Your task to perform on an android device: toggle pop-ups in chrome Image 0: 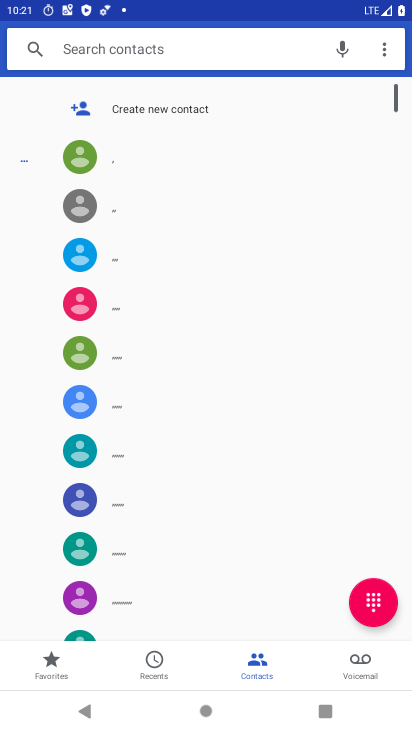
Step 0: press home button
Your task to perform on an android device: toggle pop-ups in chrome Image 1: 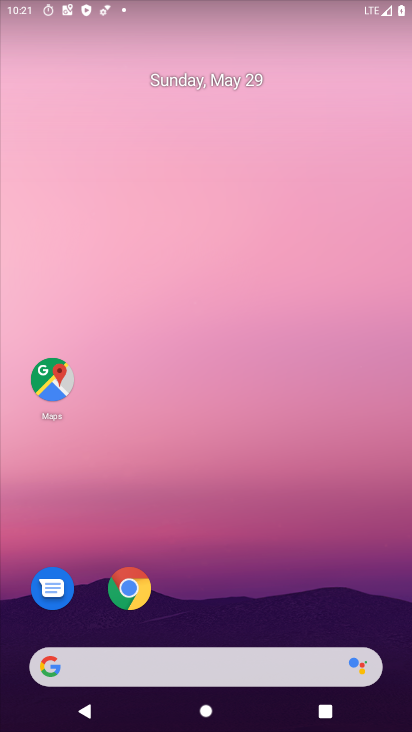
Step 1: drag from (185, 613) to (169, 285)
Your task to perform on an android device: toggle pop-ups in chrome Image 2: 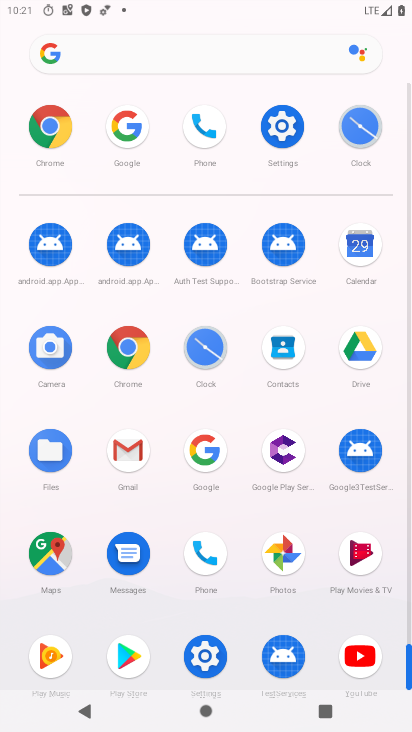
Step 2: click (134, 359)
Your task to perform on an android device: toggle pop-ups in chrome Image 3: 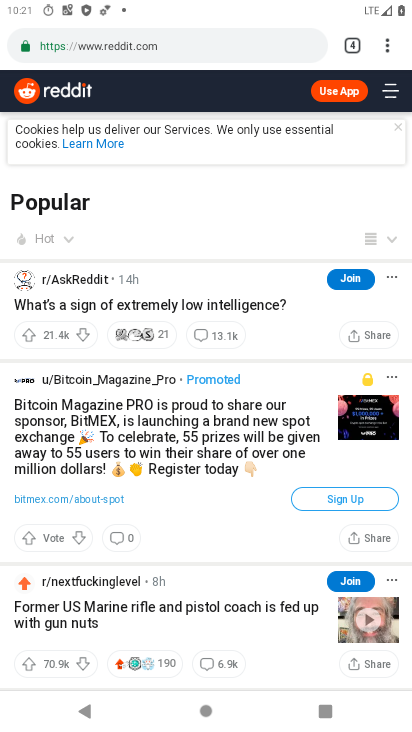
Step 3: click (390, 46)
Your task to perform on an android device: toggle pop-ups in chrome Image 4: 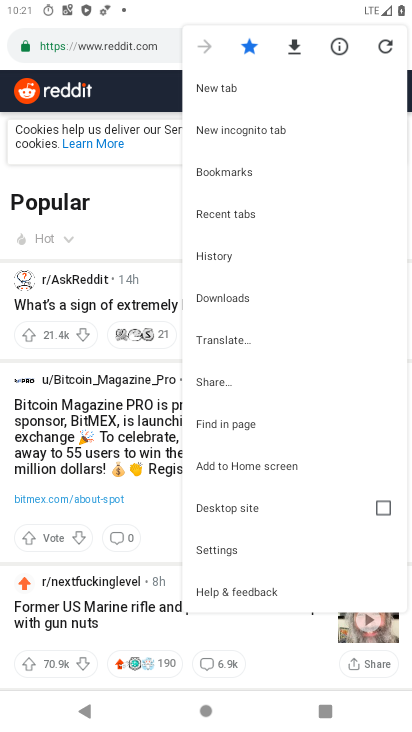
Step 4: click (241, 553)
Your task to perform on an android device: toggle pop-ups in chrome Image 5: 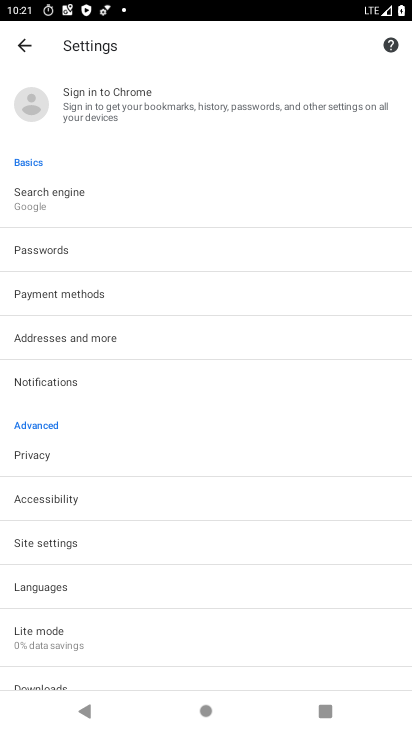
Step 5: click (93, 547)
Your task to perform on an android device: toggle pop-ups in chrome Image 6: 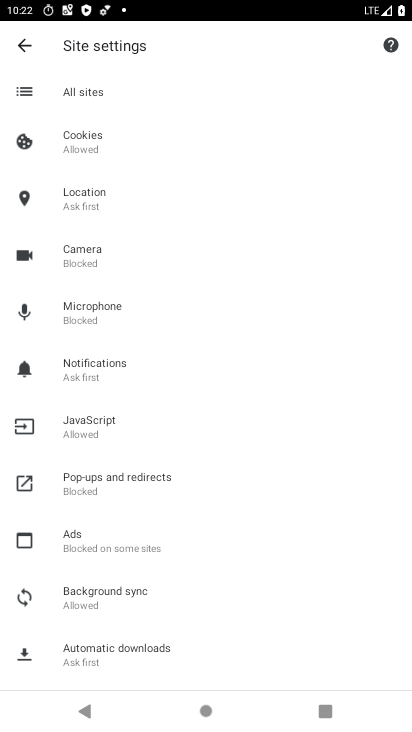
Step 6: click (127, 478)
Your task to perform on an android device: toggle pop-ups in chrome Image 7: 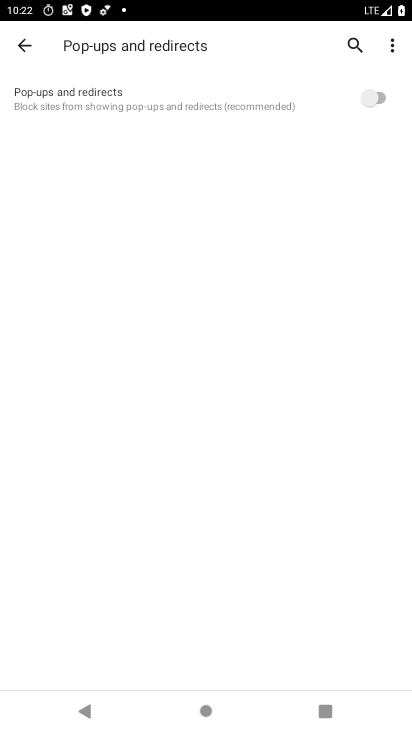
Step 7: click (378, 109)
Your task to perform on an android device: toggle pop-ups in chrome Image 8: 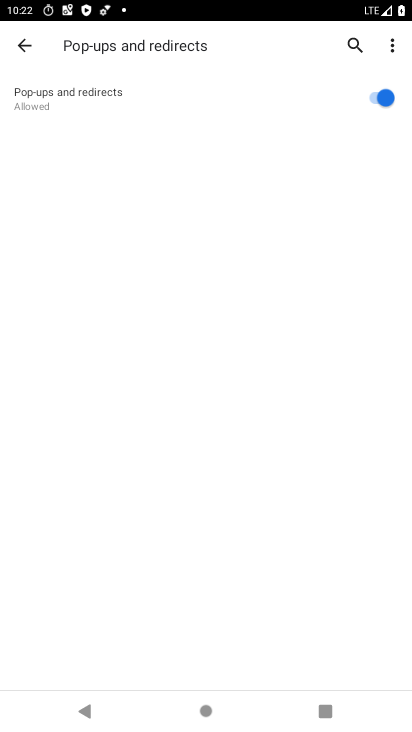
Step 8: task complete